Your task to perform on an android device: set an alarm Image 0: 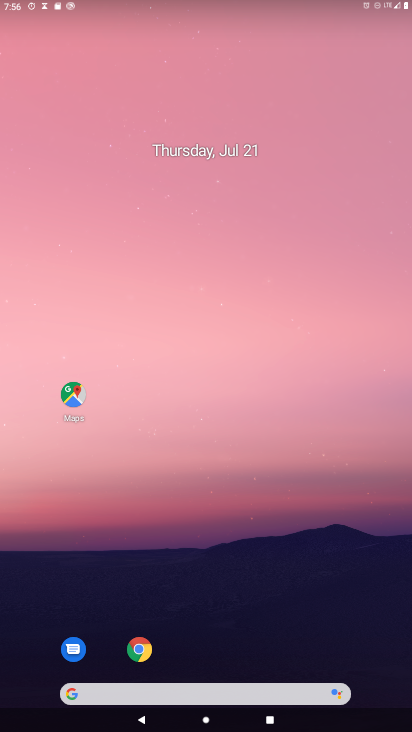
Step 0: drag from (386, 621) to (208, 124)
Your task to perform on an android device: set an alarm Image 1: 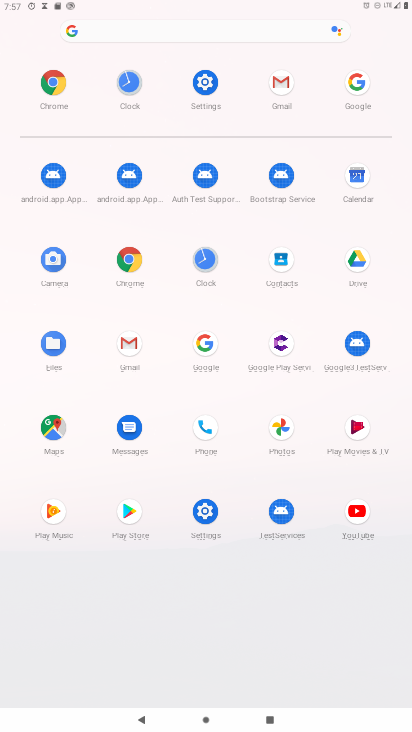
Step 1: click (210, 269)
Your task to perform on an android device: set an alarm Image 2: 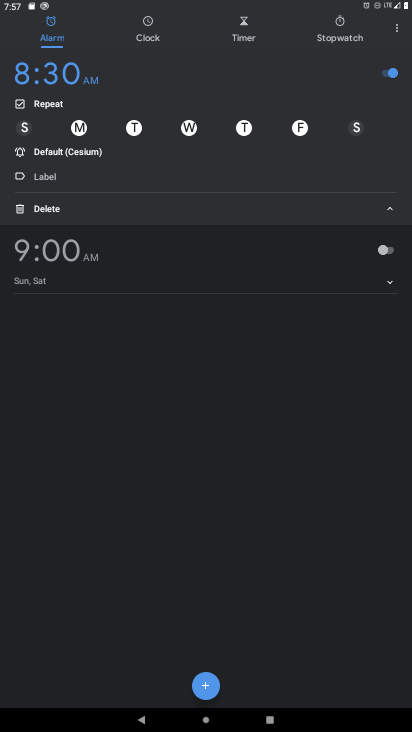
Step 2: click (387, 253)
Your task to perform on an android device: set an alarm Image 3: 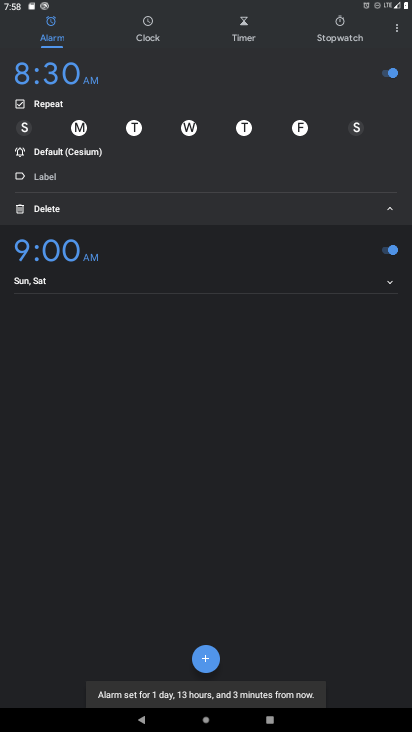
Step 3: task complete